Your task to perform on an android device: toggle sleep mode Image 0: 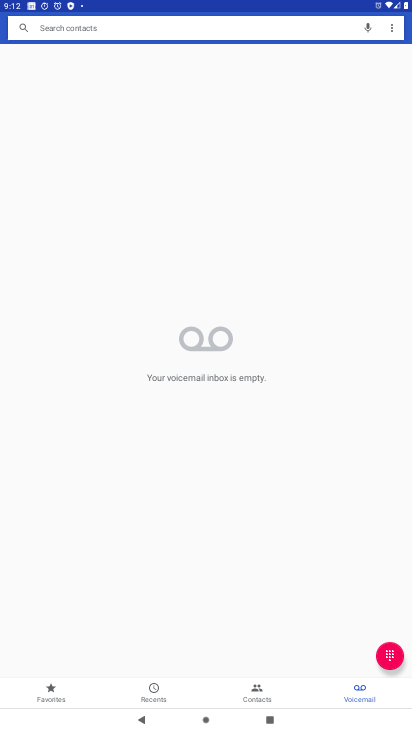
Step 0: press home button
Your task to perform on an android device: toggle sleep mode Image 1: 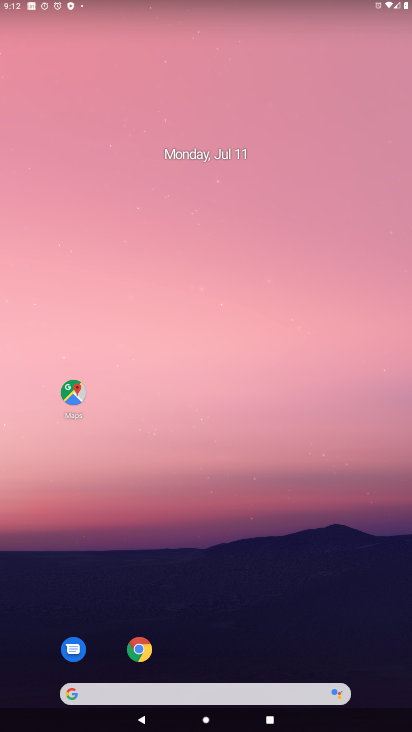
Step 1: drag from (201, 689) to (186, 66)
Your task to perform on an android device: toggle sleep mode Image 2: 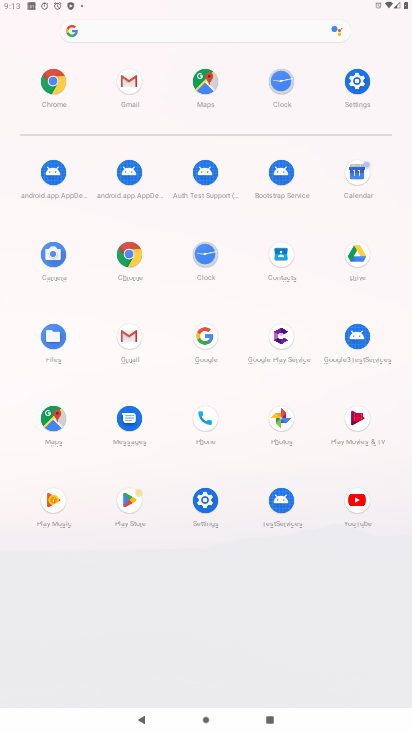
Step 2: click (353, 81)
Your task to perform on an android device: toggle sleep mode Image 3: 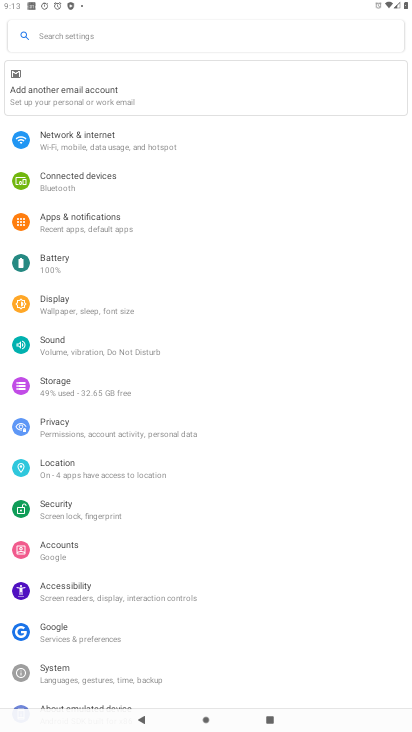
Step 3: click (88, 309)
Your task to perform on an android device: toggle sleep mode Image 4: 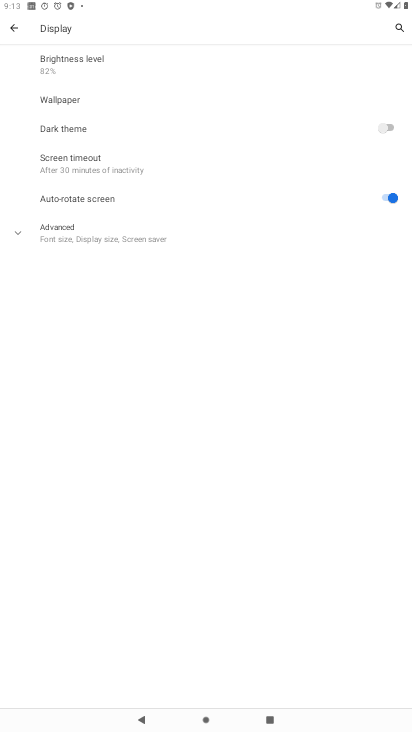
Step 4: click (97, 238)
Your task to perform on an android device: toggle sleep mode Image 5: 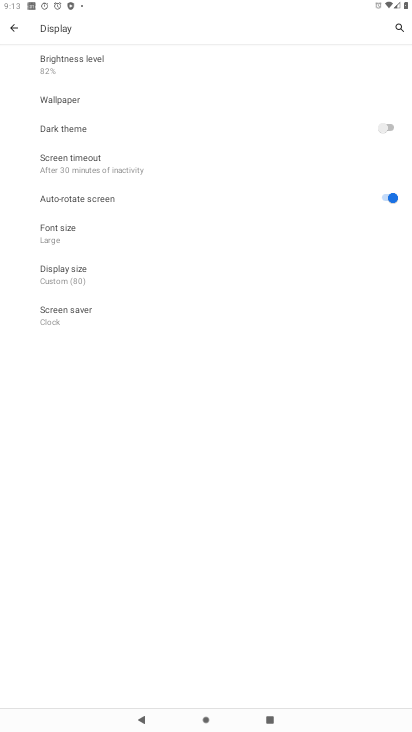
Step 5: task complete